Your task to perform on an android device: Clear all items from cart on costco. Add "bose quietcomfort 35" to the cart on costco, then select checkout. Image 0: 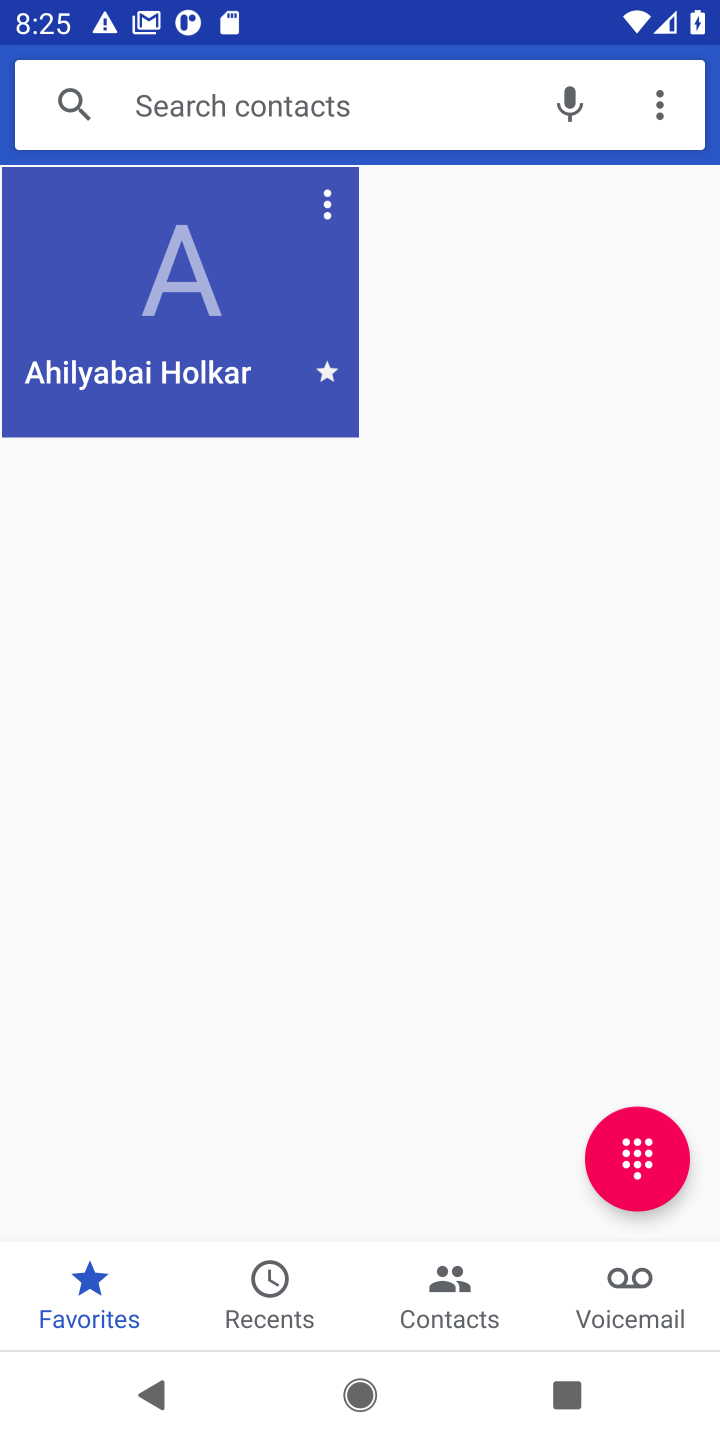
Step 0: press home button
Your task to perform on an android device: Clear all items from cart on costco. Add "bose quietcomfort 35" to the cart on costco, then select checkout. Image 1: 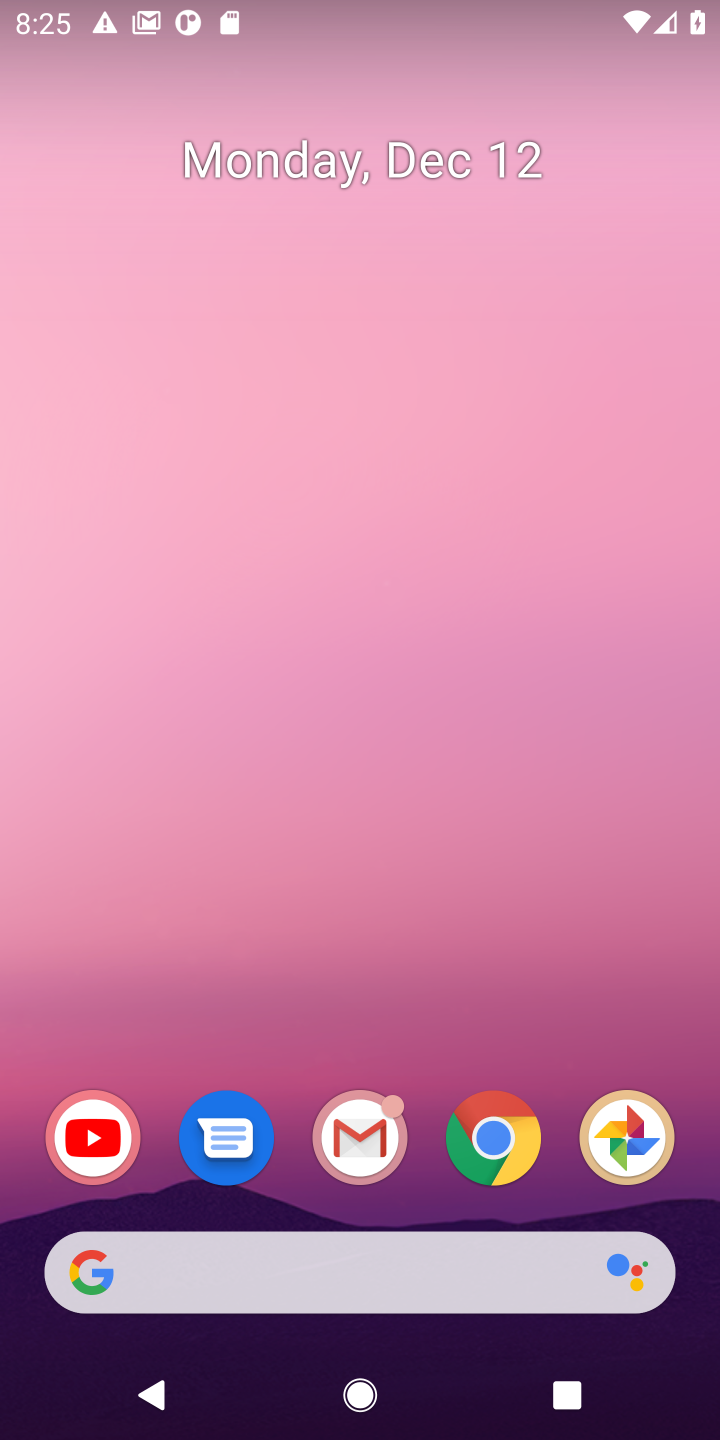
Step 1: drag from (288, 1036) to (285, 313)
Your task to perform on an android device: Clear all items from cart on costco. Add "bose quietcomfort 35" to the cart on costco, then select checkout. Image 2: 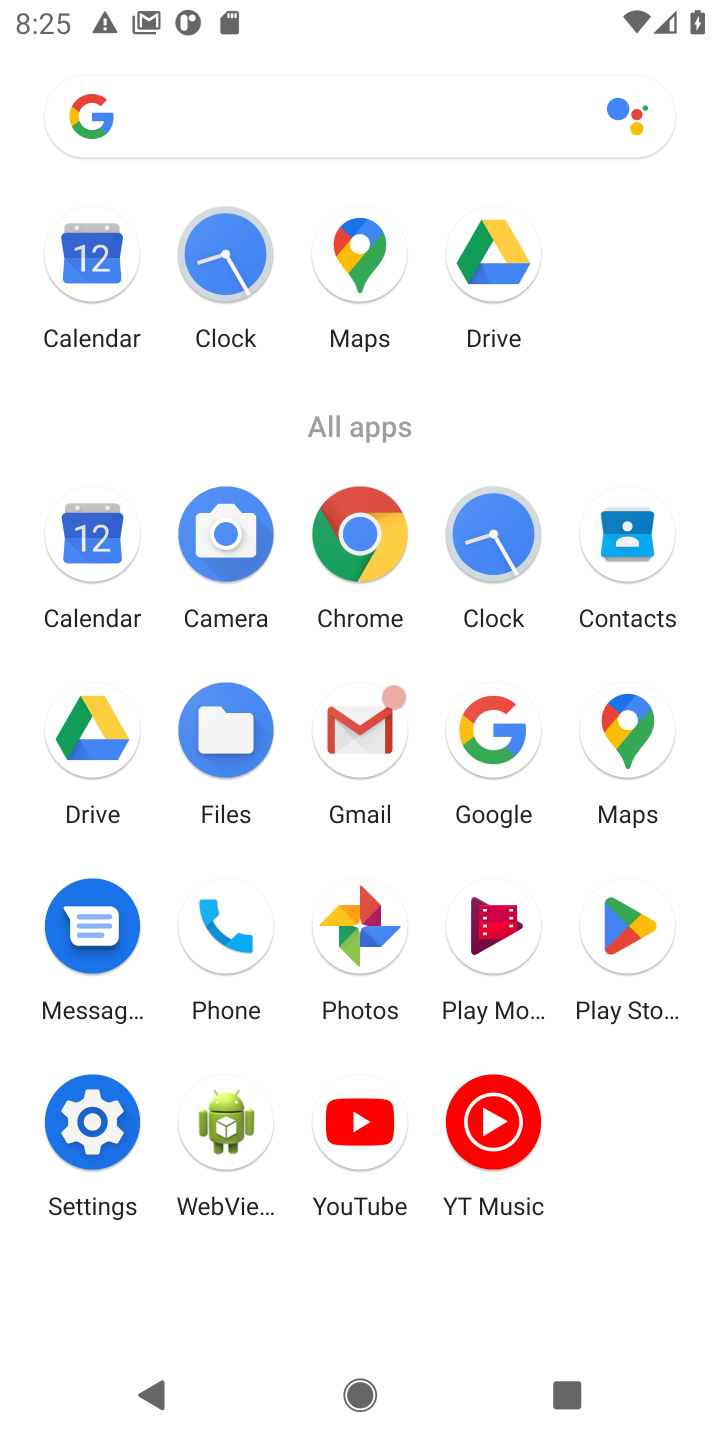
Step 2: click (507, 747)
Your task to perform on an android device: Clear all items from cart on costco. Add "bose quietcomfort 35" to the cart on costco, then select checkout. Image 3: 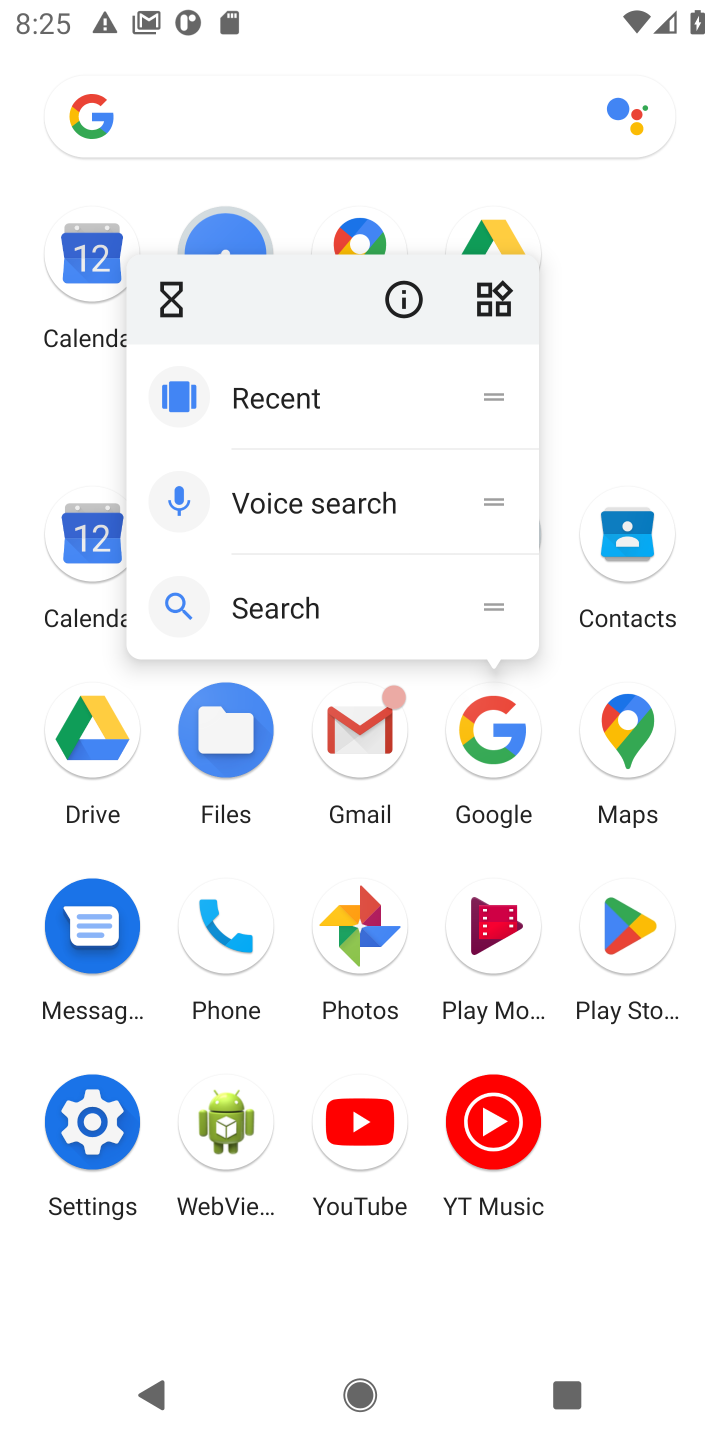
Step 3: click (507, 742)
Your task to perform on an android device: Clear all items from cart on costco. Add "bose quietcomfort 35" to the cart on costco, then select checkout. Image 4: 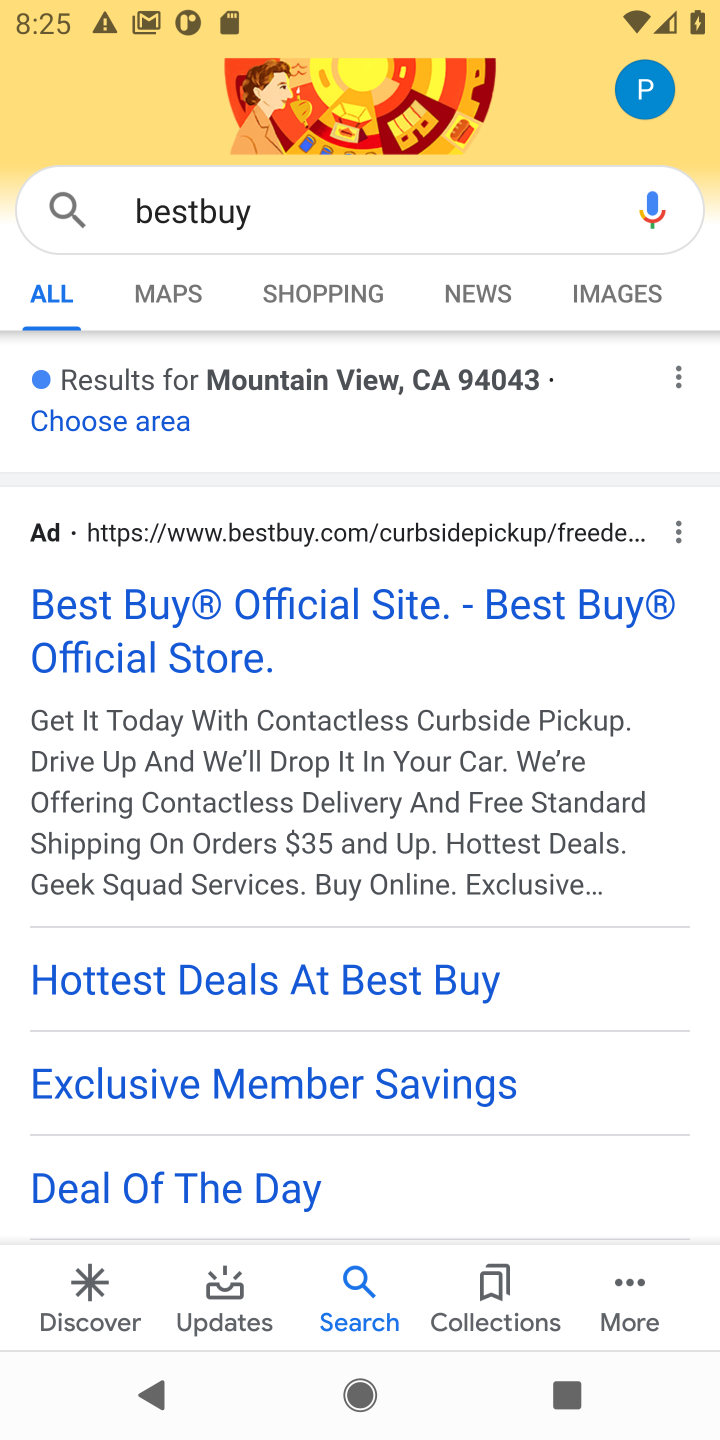
Step 4: click (177, 219)
Your task to perform on an android device: Clear all items from cart on costco. Add "bose quietcomfort 35" to the cart on costco, then select checkout. Image 5: 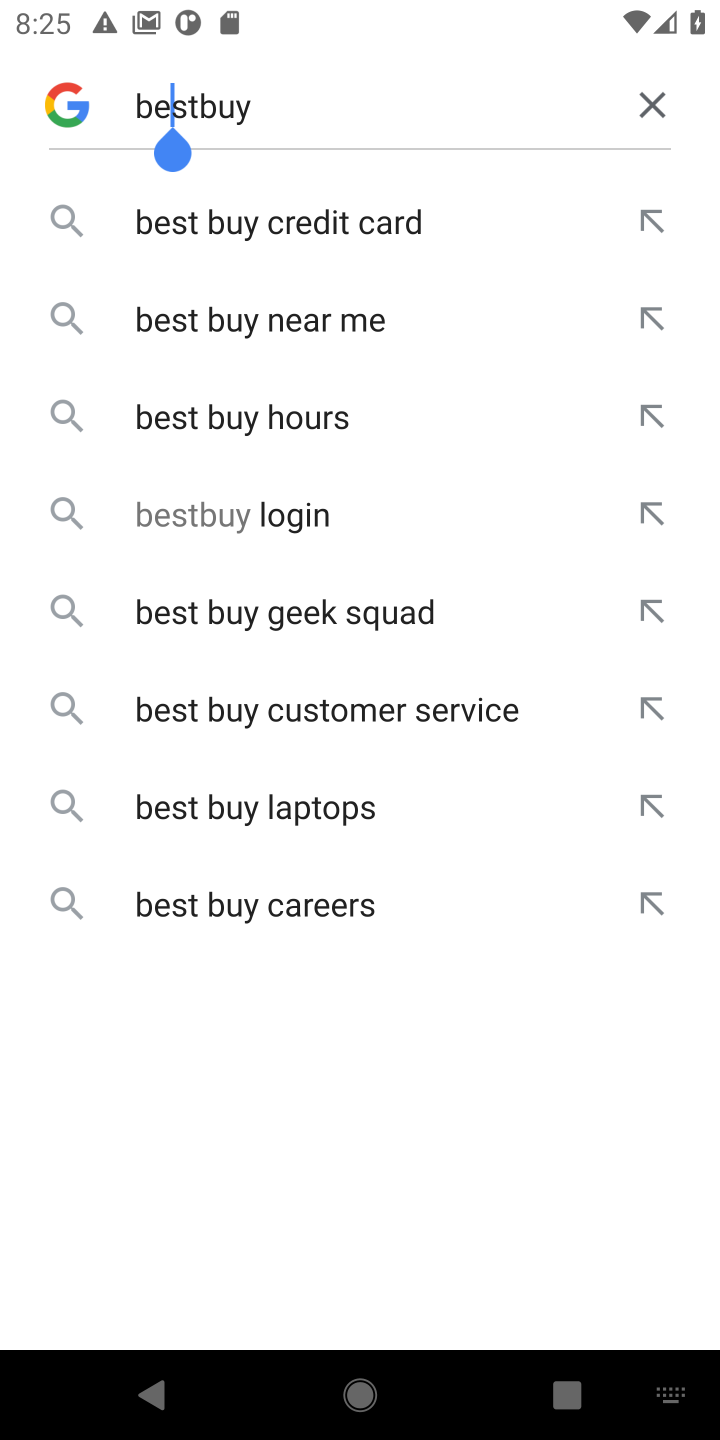
Step 5: click (652, 103)
Your task to perform on an android device: Clear all items from cart on costco. Add "bose quietcomfort 35" to the cart on costco, then select checkout. Image 6: 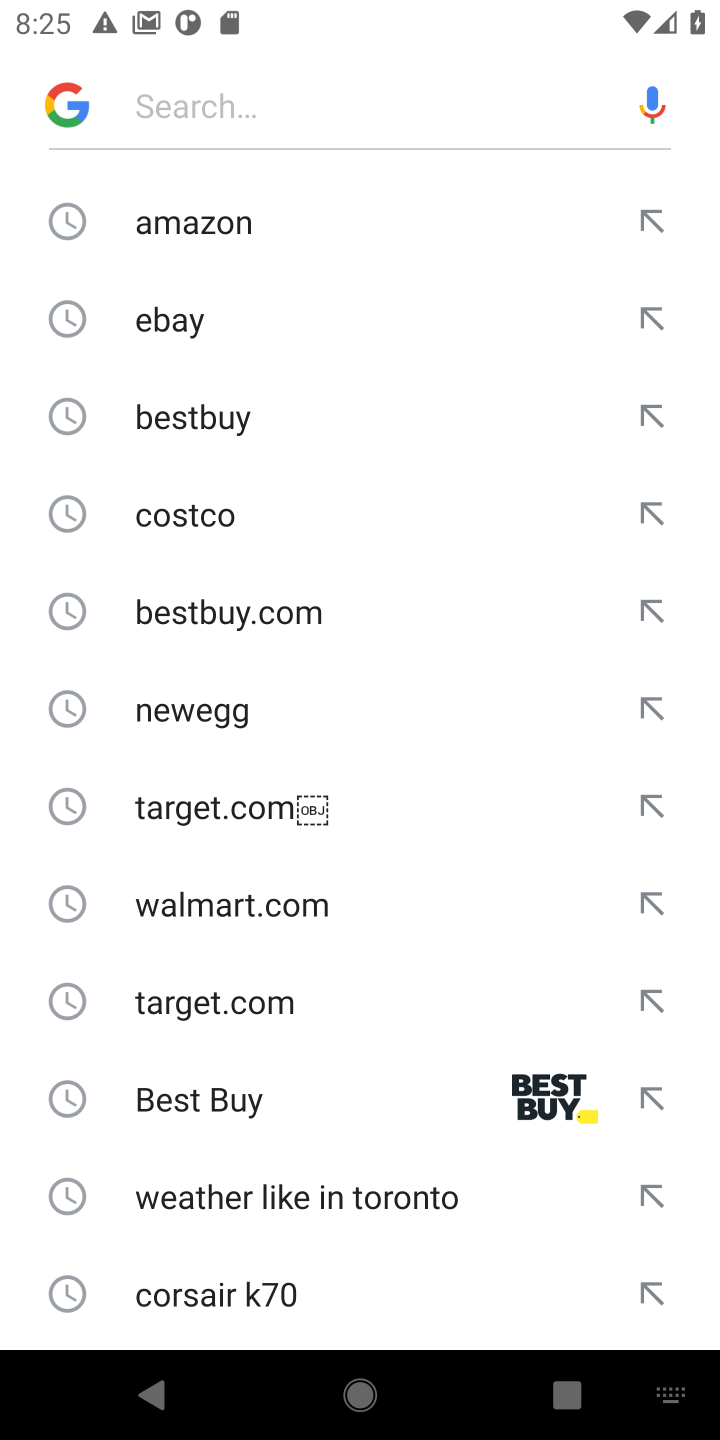
Step 6: click (189, 529)
Your task to perform on an android device: Clear all items from cart on costco. Add "bose quietcomfort 35" to the cart on costco, then select checkout. Image 7: 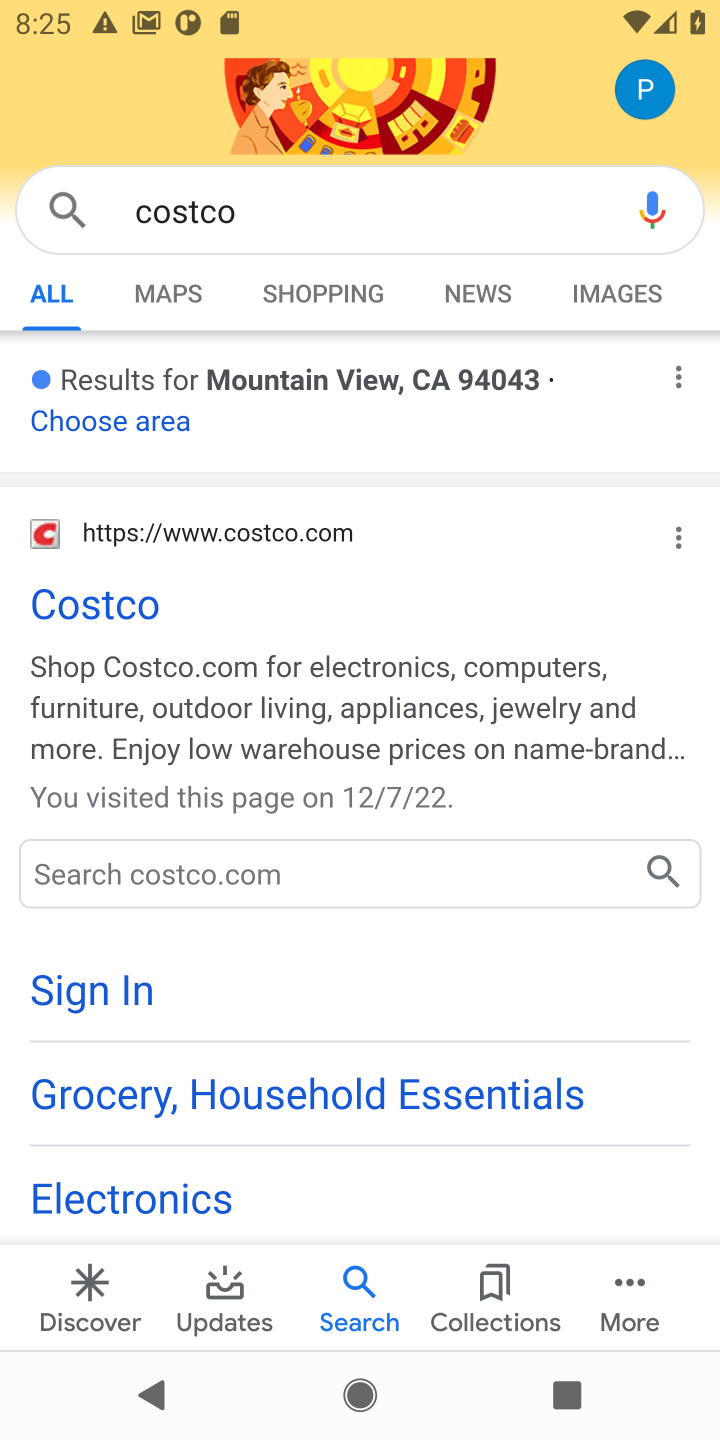
Step 7: click (142, 607)
Your task to perform on an android device: Clear all items from cart on costco. Add "bose quietcomfort 35" to the cart on costco, then select checkout. Image 8: 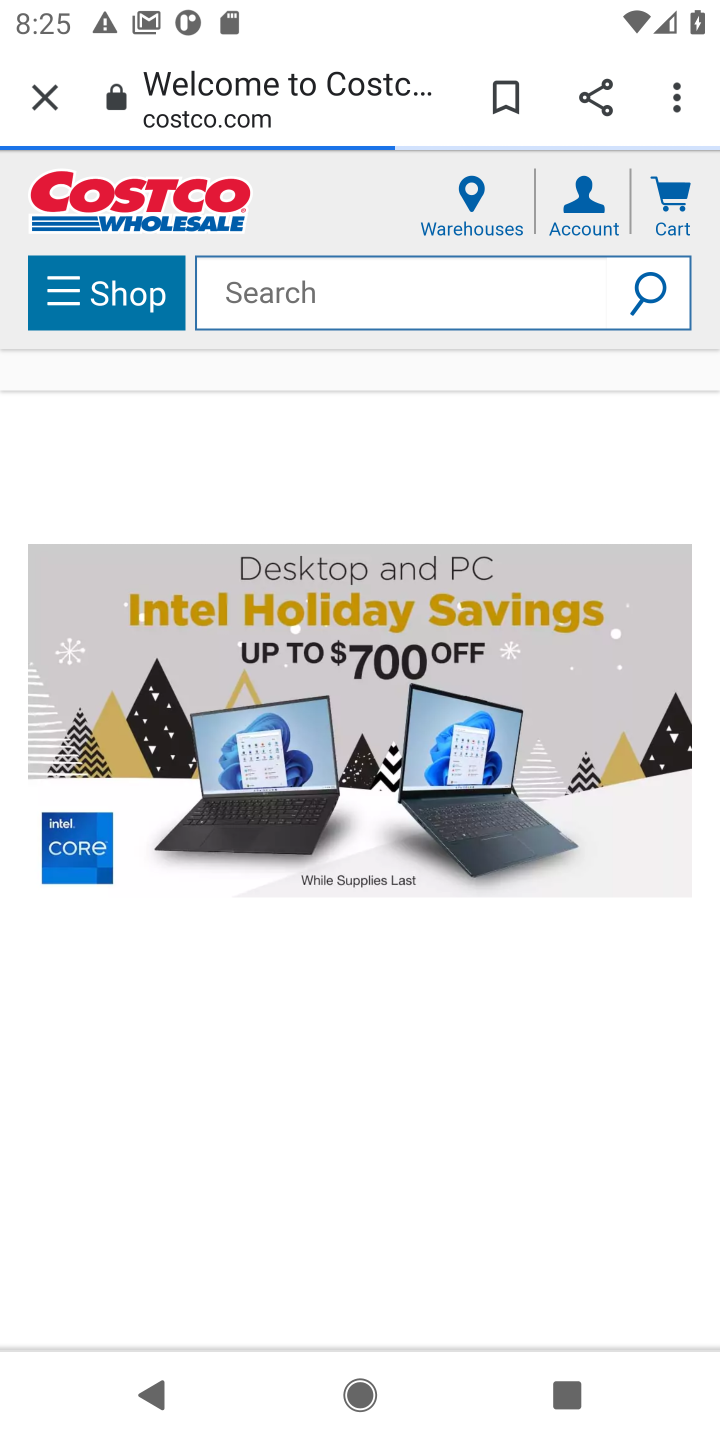
Step 8: click (381, 295)
Your task to perform on an android device: Clear all items from cart on costco. Add "bose quietcomfort 35" to the cart on costco, then select checkout. Image 9: 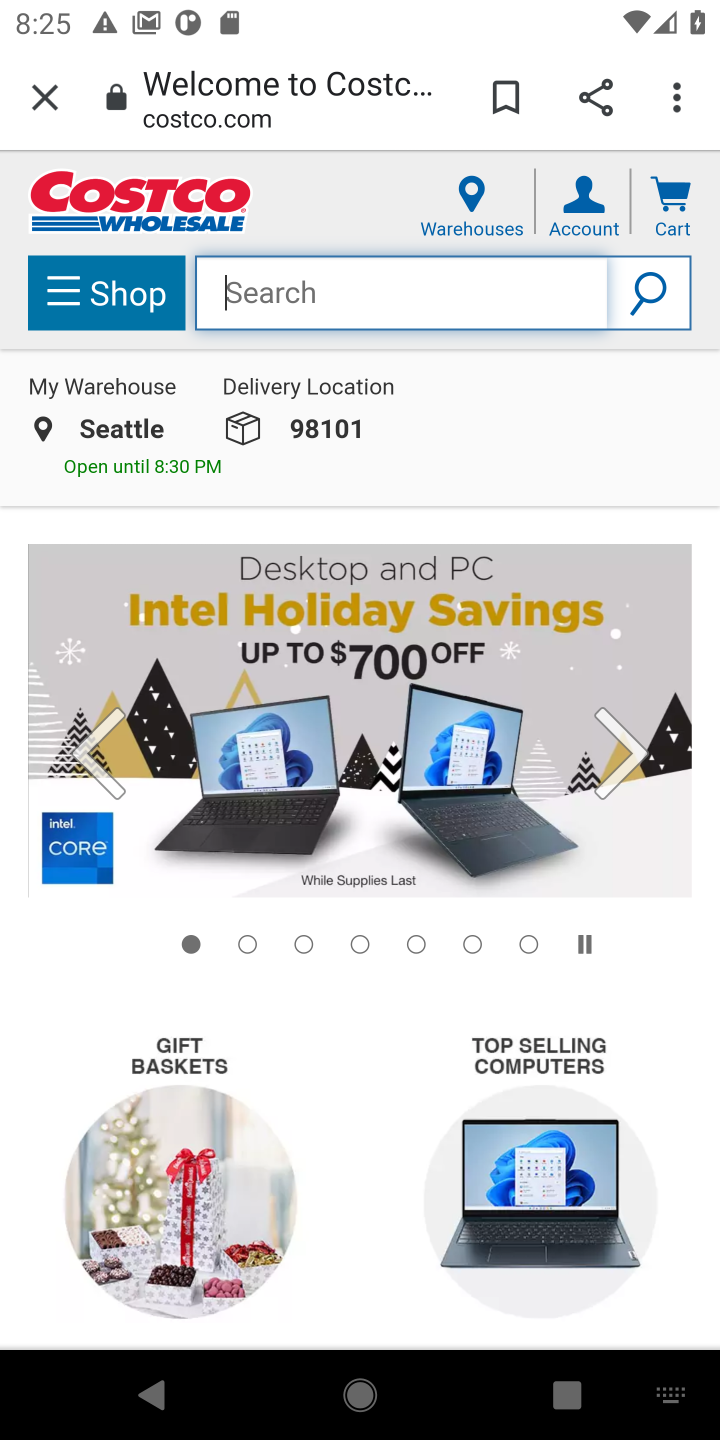
Step 9: click (669, 206)
Your task to perform on an android device: Clear all items from cart on costco. Add "bose quietcomfort 35" to the cart on costco, then select checkout. Image 10: 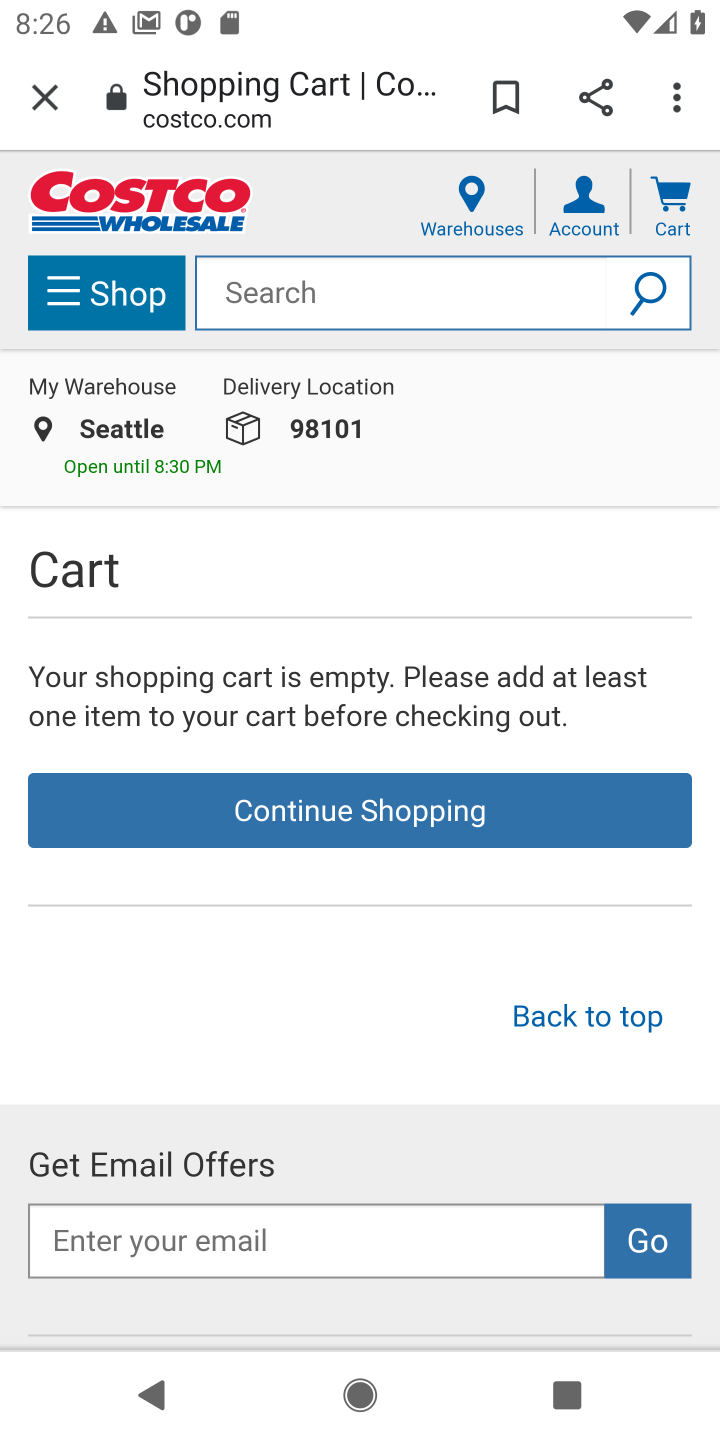
Step 10: drag from (320, 1128) to (379, 256)
Your task to perform on an android device: Clear all items from cart on costco. Add "bose quietcomfort 35" to the cart on costco, then select checkout. Image 11: 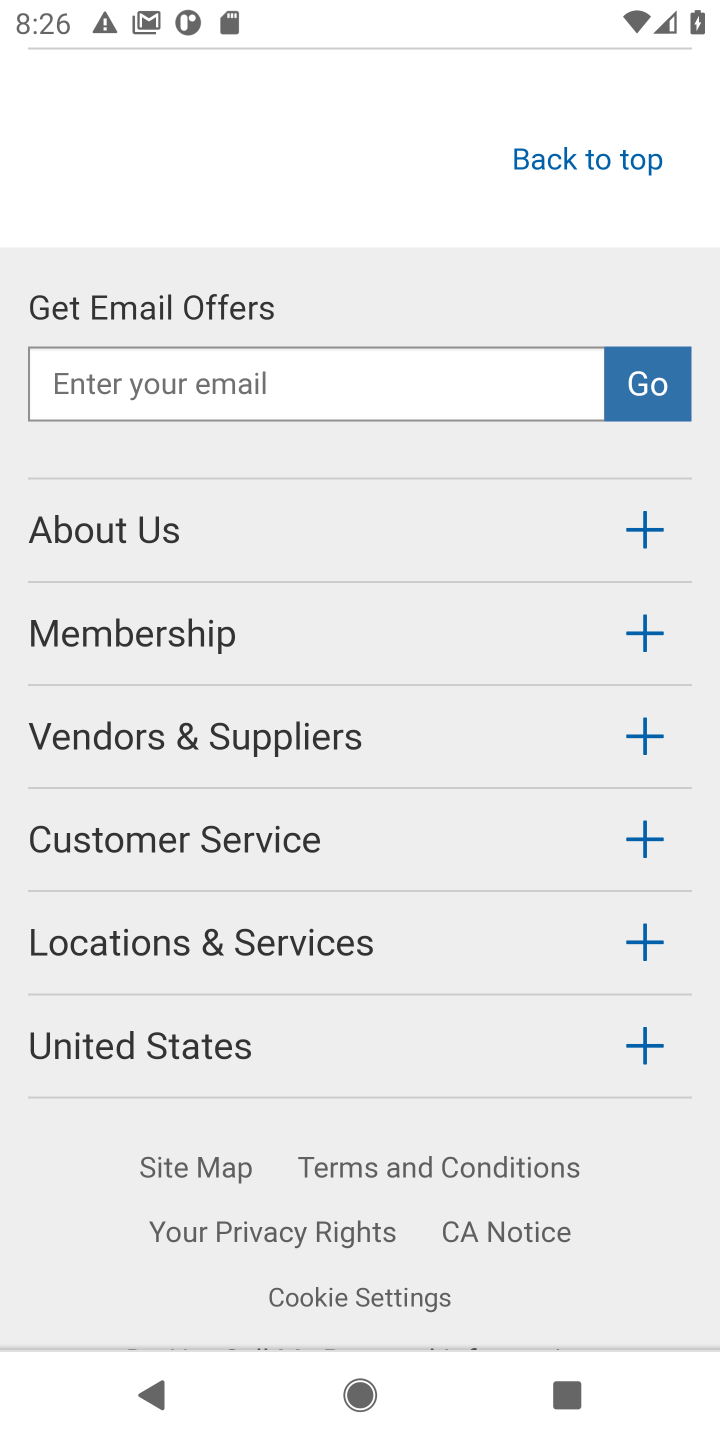
Step 11: drag from (402, 121) to (275, 932)
Your task to perform on an android device: Clear all items from cart on costco. Add "bose quietcomfort 35" to the cart on costco, then select checkout. Image 12: 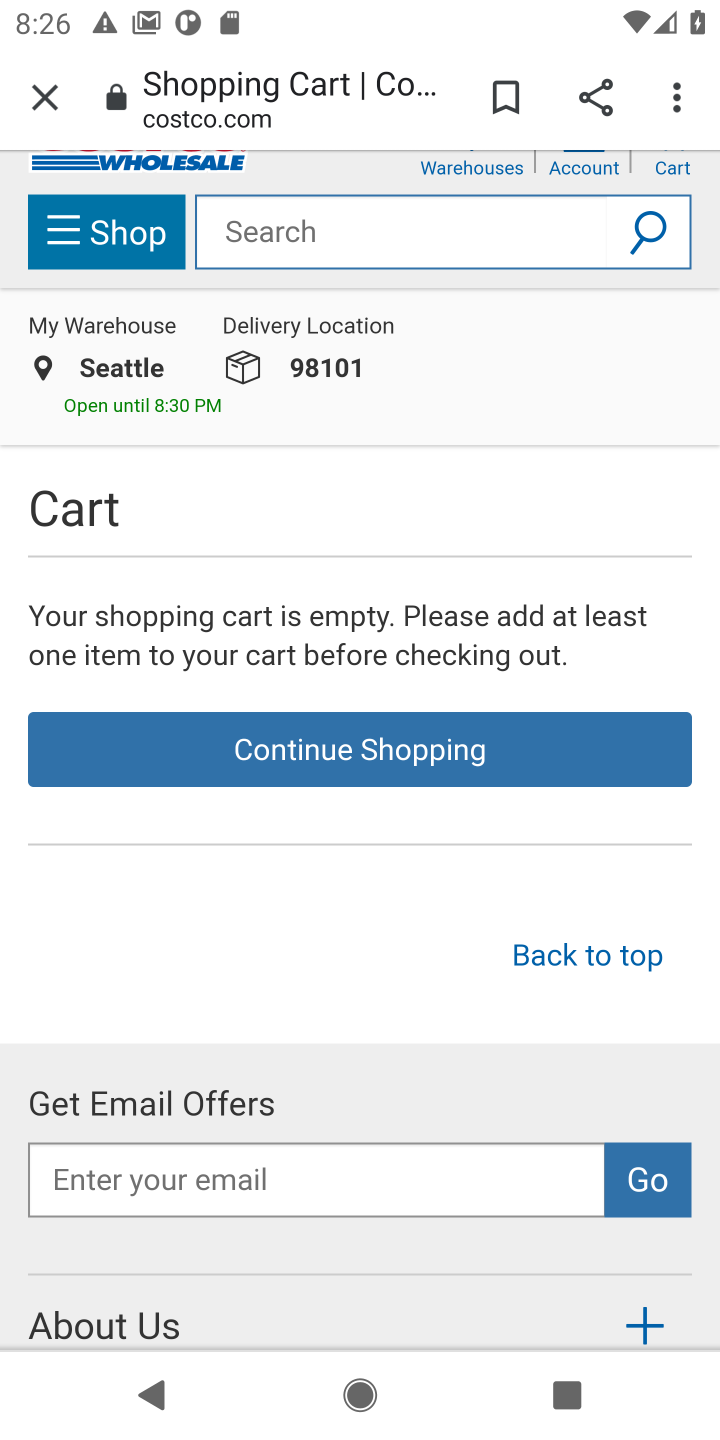
Step 12: drag from (351, 328) to (336, 935)
Your task to perform on an android device: Clear all items from cart on costco. Add "bose quietcomfort 35" to the cart on costco, then select checkout. Image 13: 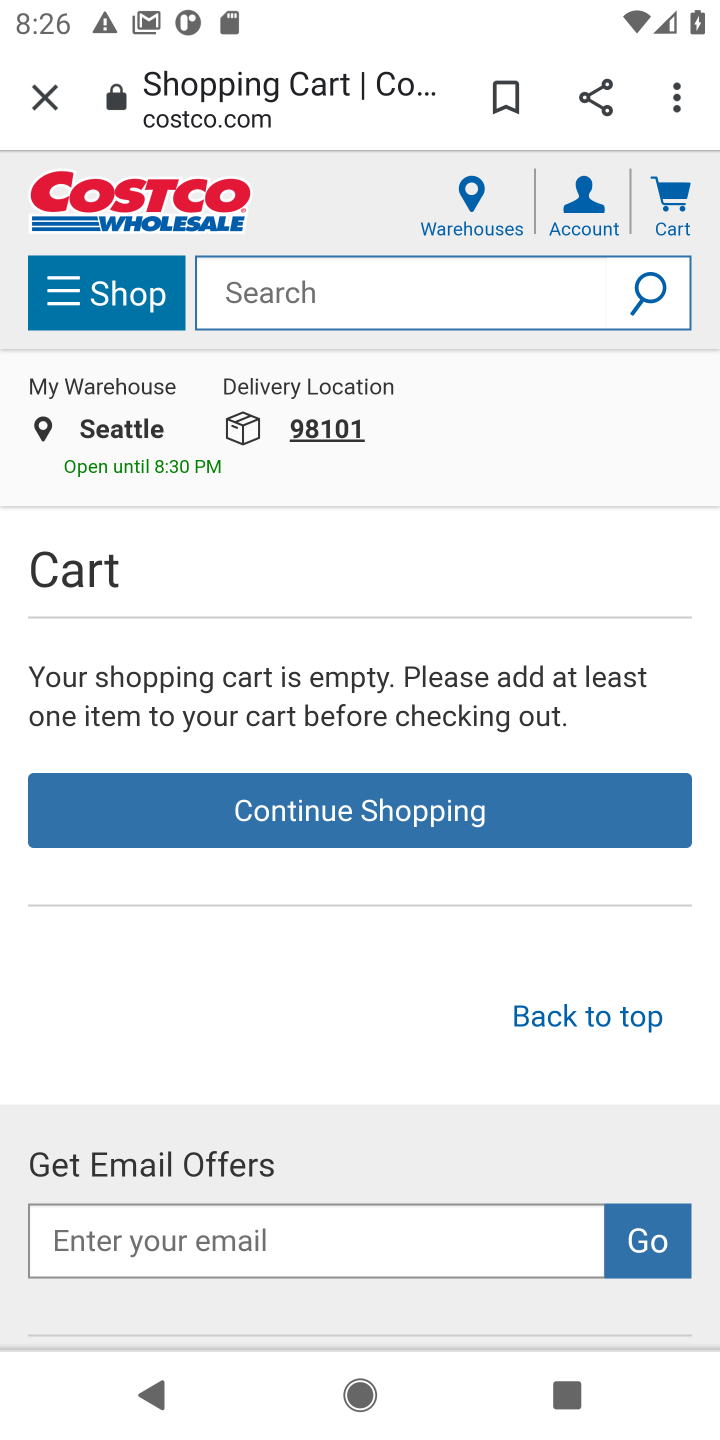
Step 13: click (255, 293)
Your task to perform on an android device: Clear all items from cart on costco. Add "bose quietcomfort 35" to the cart on costco, then select checkout. Image 14: 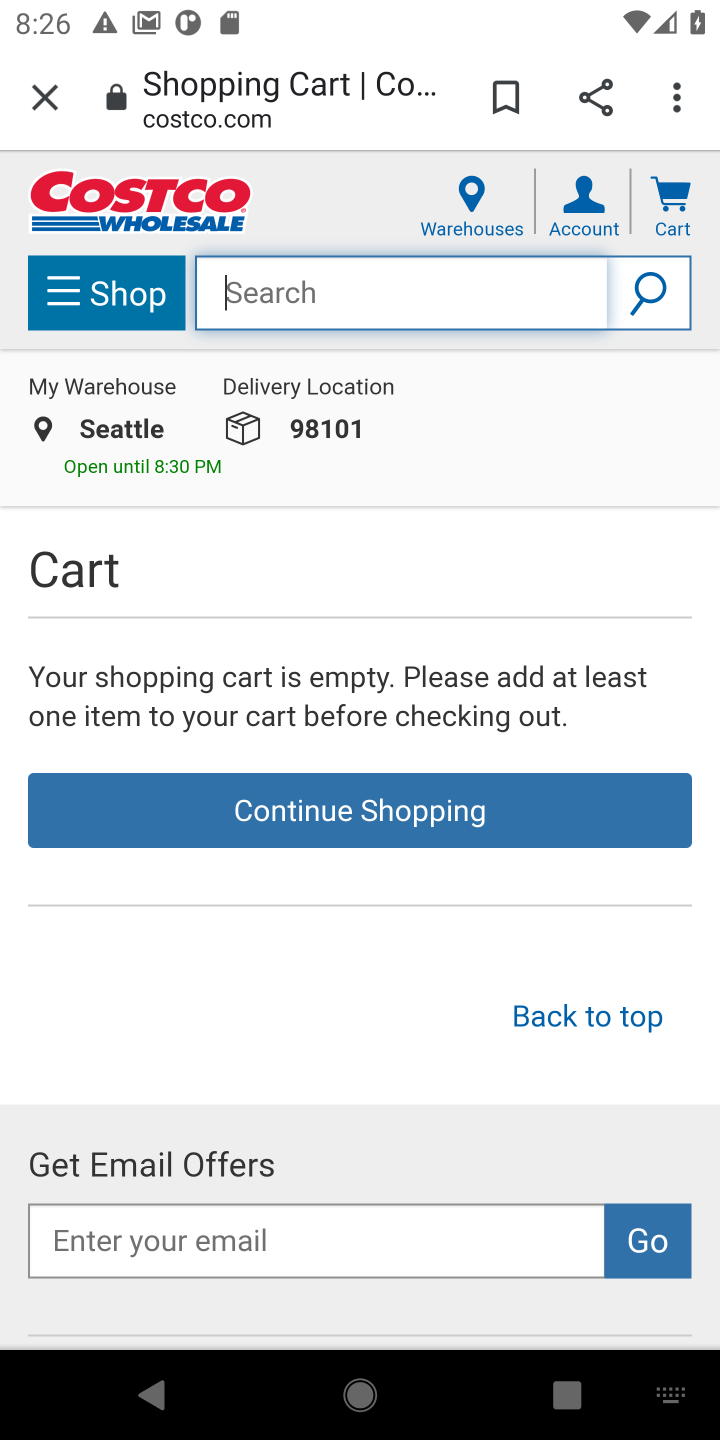
Step 14: type "bose quietcomfort 35"
Your task to perform on an android device: Clear all items from cart on costco. Add "bose quietcomfort 35" to the cart on costco, then select checkout. Image 15: 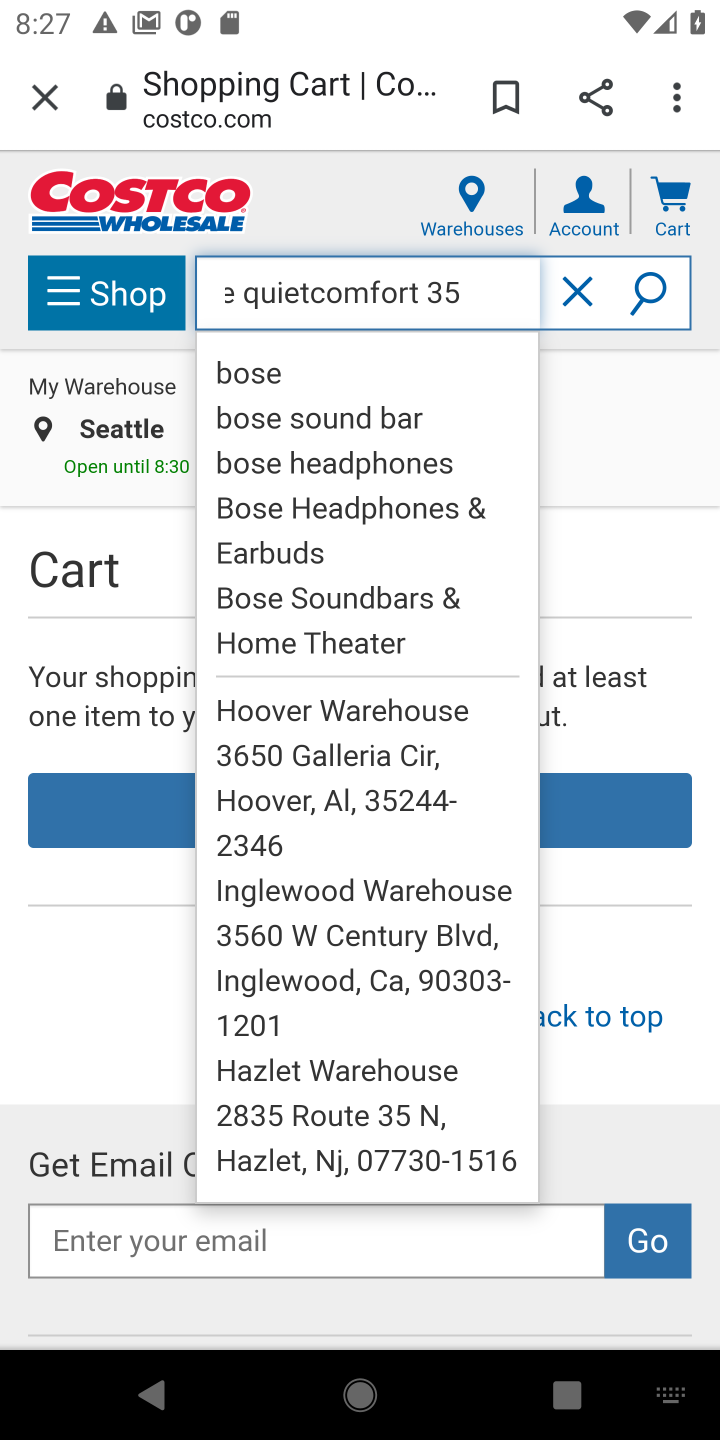
Step 15: click (650, 275)
Your task to perform on an android device: Clear all items from cart on costco. Add "bose quietcomfort 35" to the cart on costco, then select checkout. Image 16: 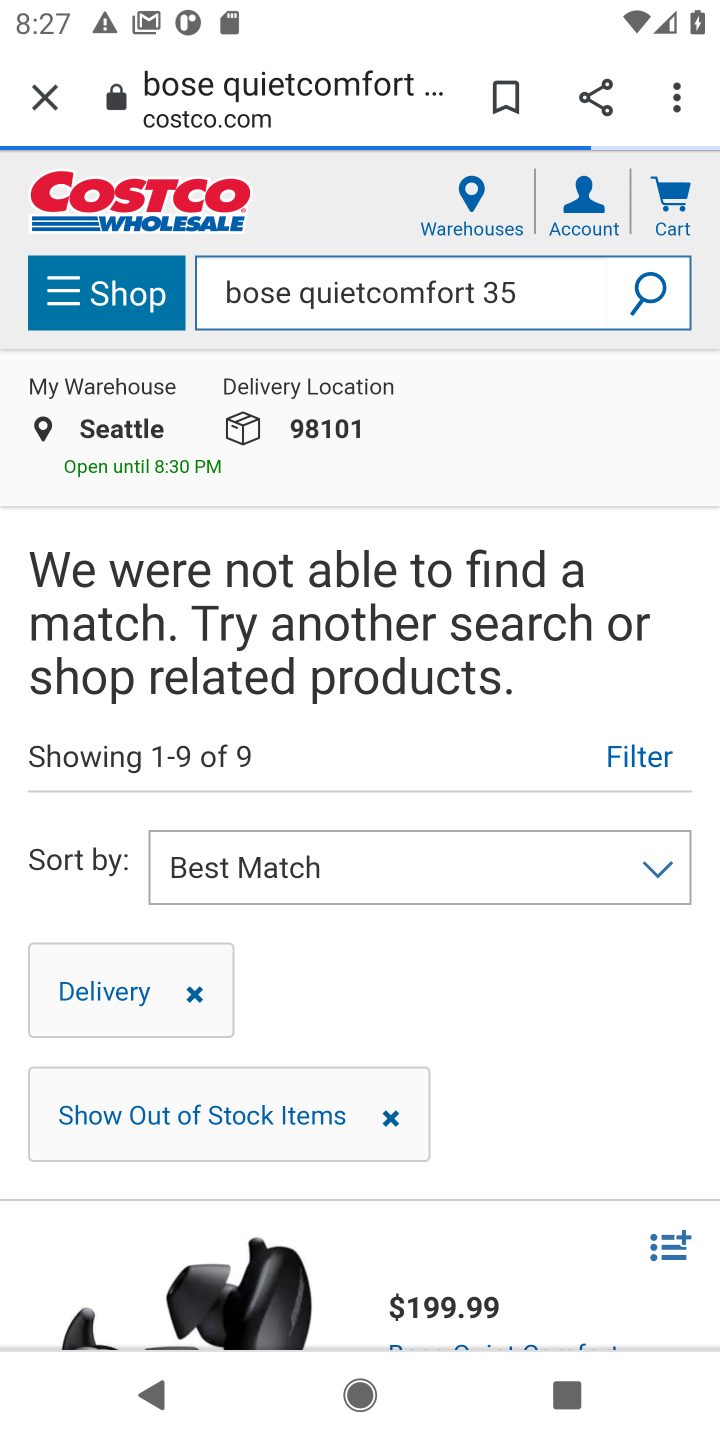
Step 16: drag from (470, 1130) to (468, 536)
Your task to perform on an android device: Clear all items from cart on costco. Add "bose quietcomfort 35" to the cart on costco, then select checkout. Image 17: 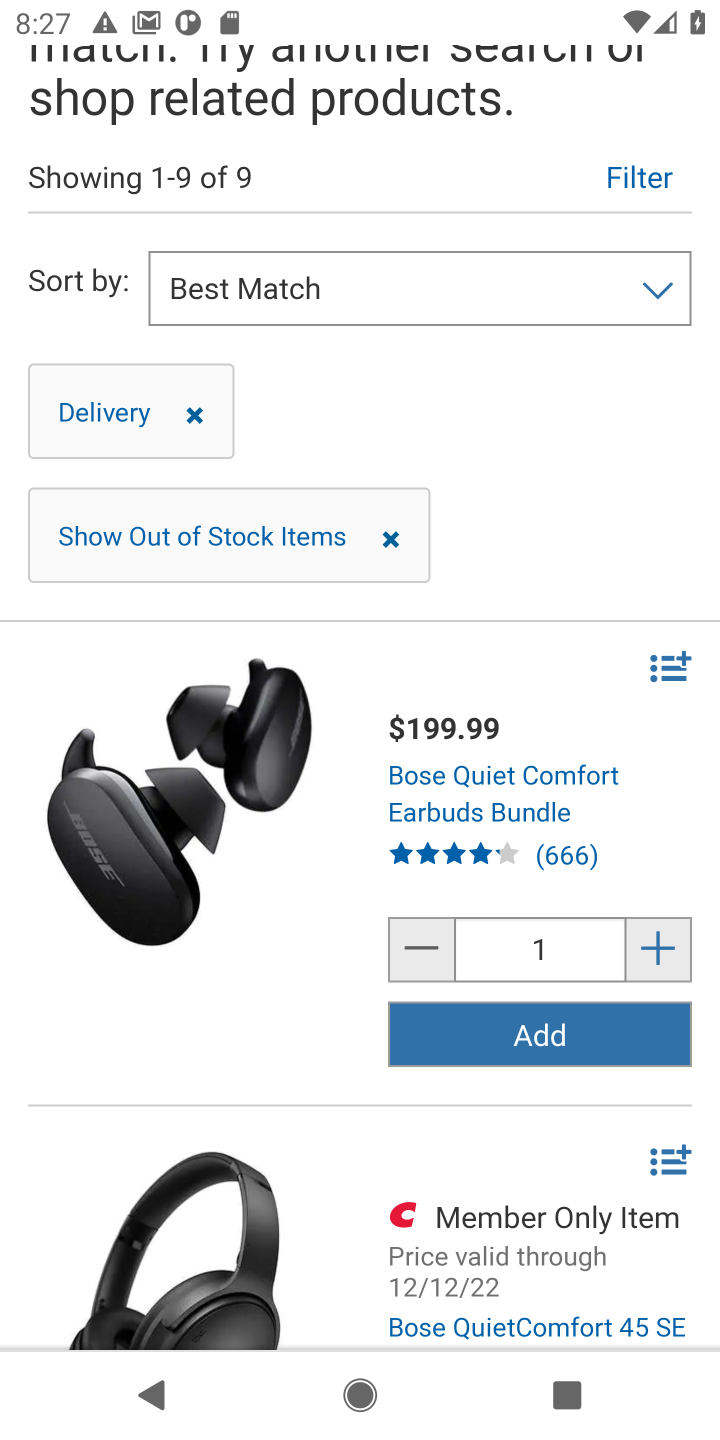
Step 17: click (555, 1039)
Your task to perform on an android device: Clear all items from cart on costco. Add "bose quietcomfort 35" to the cart on costco, then select checkout. Image 18: 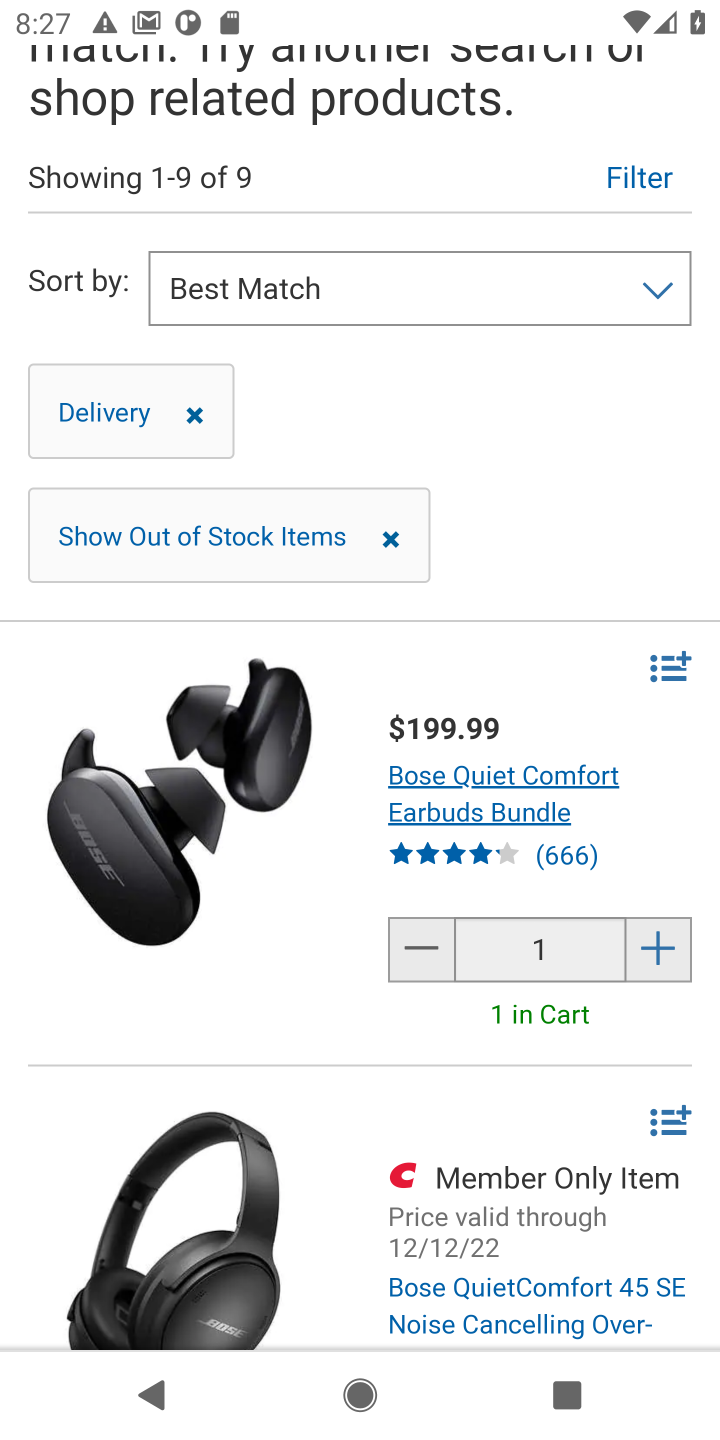
Step 18: drag from (266, 1000) to (293, 450)
Your task to perform on an android device: Clear all items from cart on costco. Add "bose quietcomfort 35" to the cart on costco, then select checkout. Image 19: 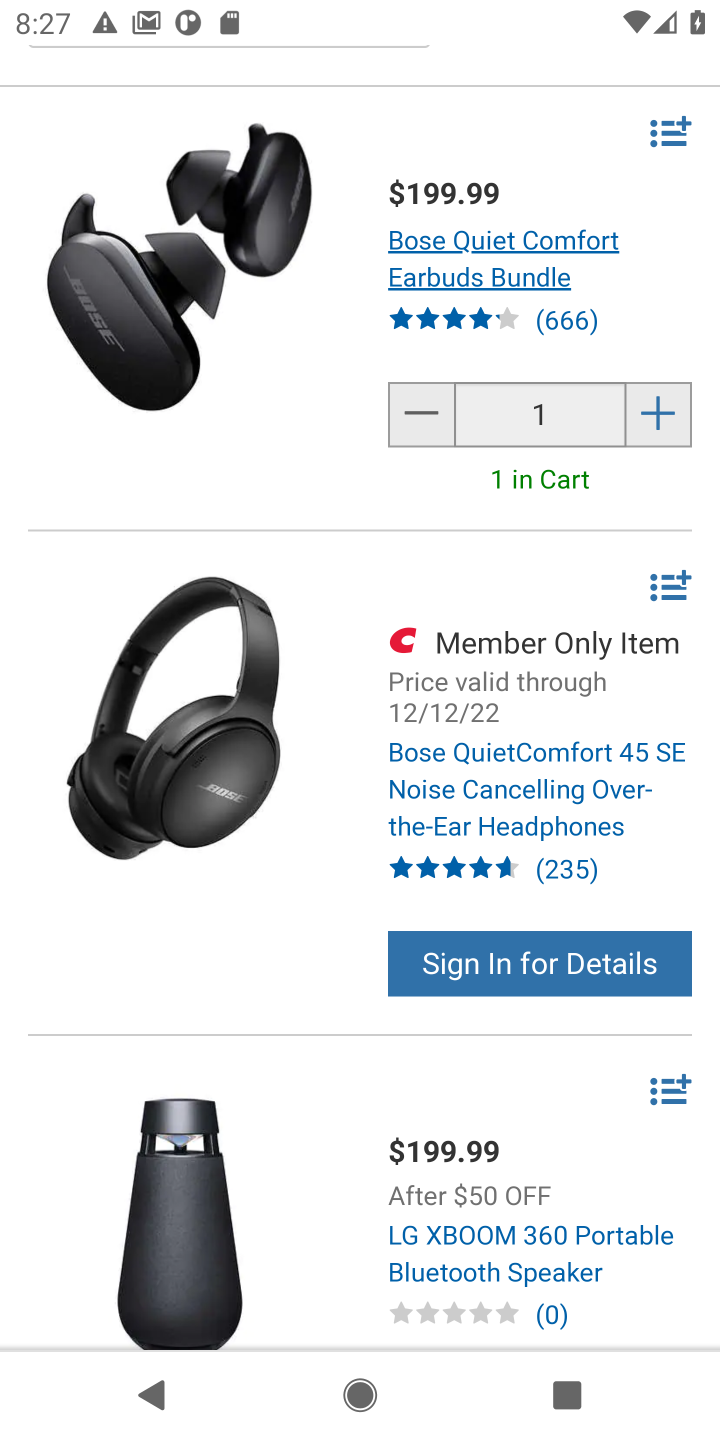
Step 19: drag from (416, 134) to (402, 950)
Your task to perform on an android device: Clear all items from cart on costco. Add "bose quietcomfort 35" to the cart on costco, then select checkout. Image 20: 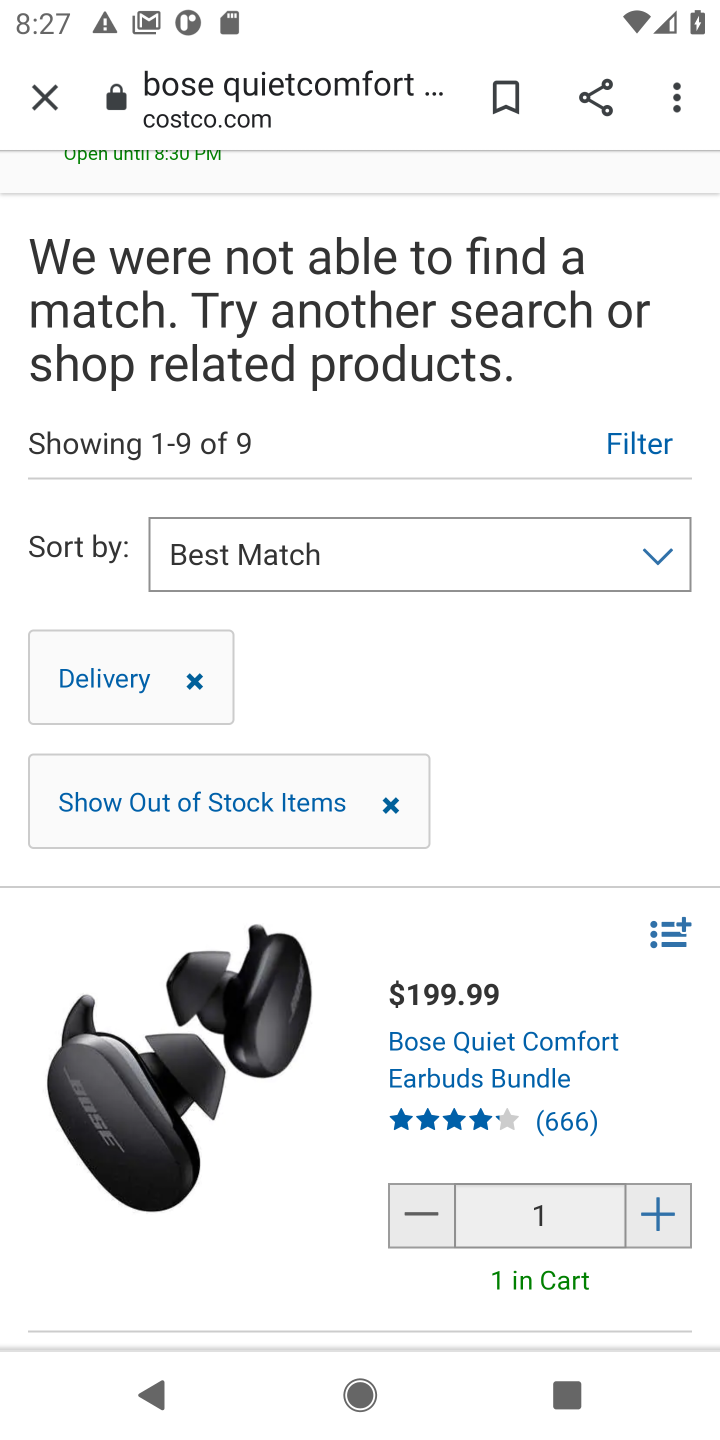
Step 20: drag from (412, 166) to (475, 918)
Your task to perform on an android device: Clear all items from cart on costco. Add "bose quietcomfort 35" to the cart on costco, then select checkout. Image 21: 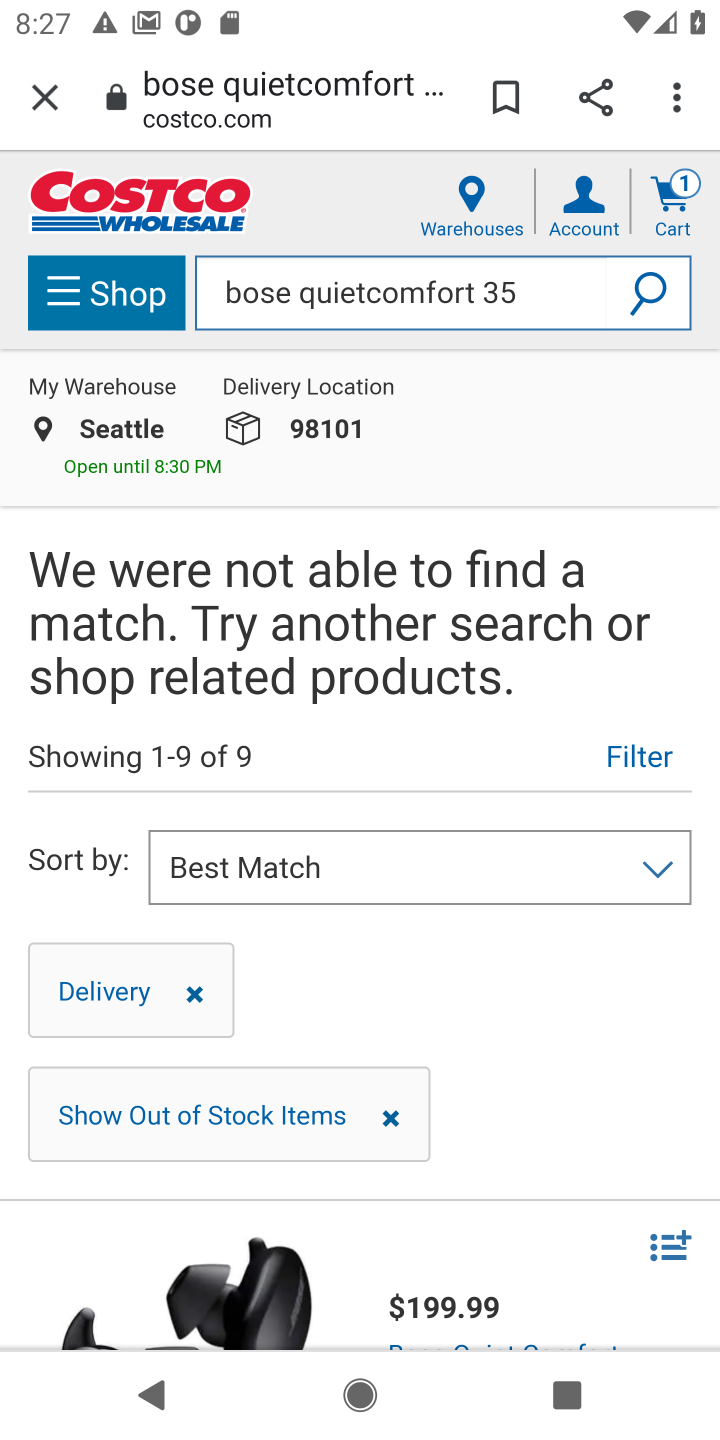
Step 21: click (661, 198)
Your task to perform on an android device: Clear all items from cart on costco. Add "bose quietcomfort 35" to the cart on costco, then select checkout. Image 22: 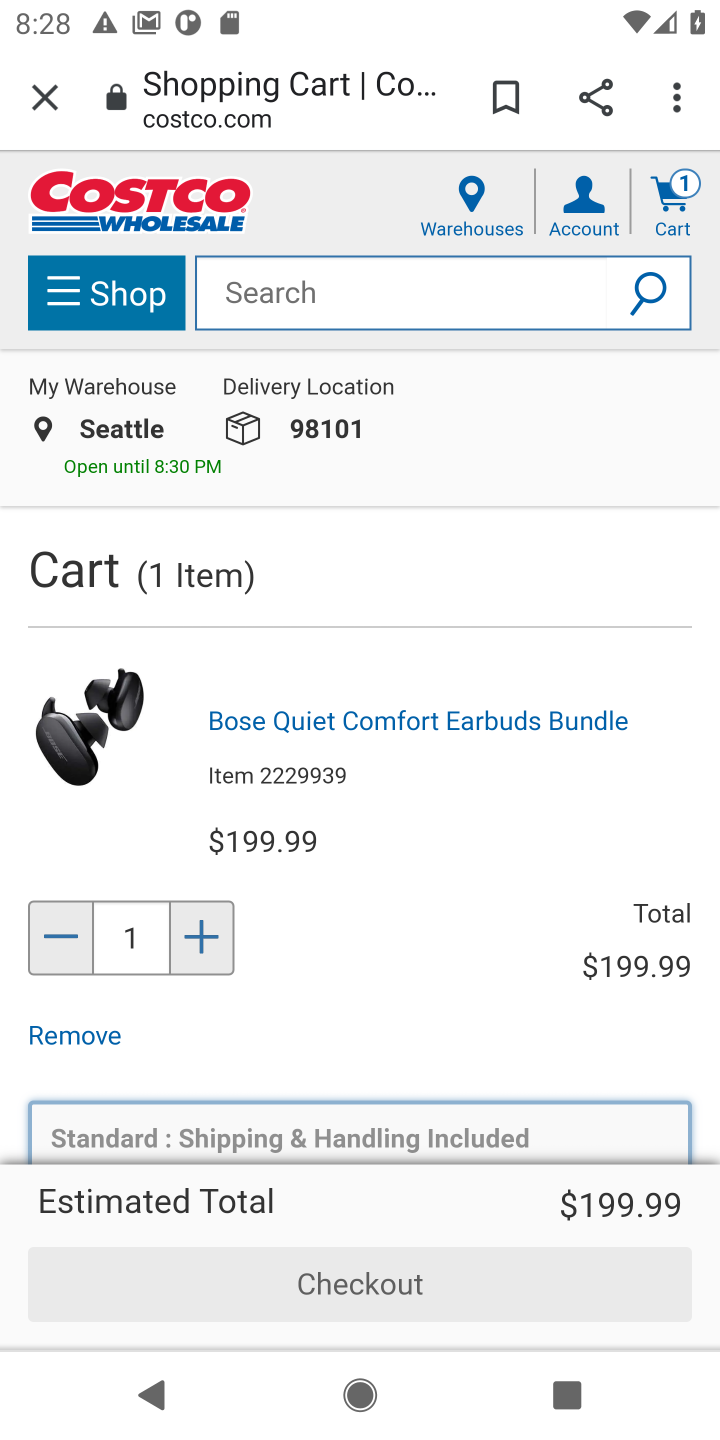
Step 22: drag from (414, 1080) to (410, 375)
Your task to perform on an android device: Clear all items from cart on costco. Add "bose quietcomfort 35" to the cart on costco, then select checkout. Image 23: 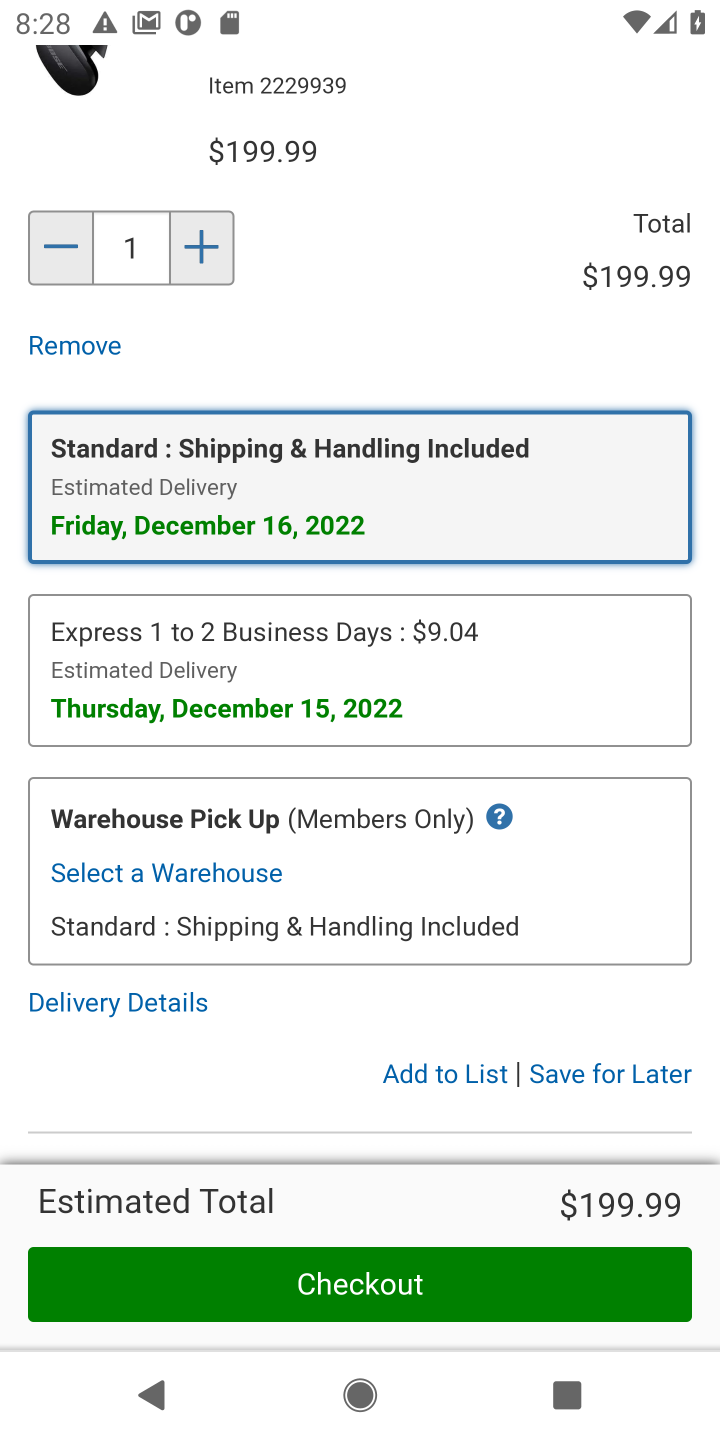
Step 23: click (399, 1298)
Your task to perform on an android device: Clear all items from cart on costco. Add "bose quietcomfort 35" to the cart on costco, then select checkout. Image 24: 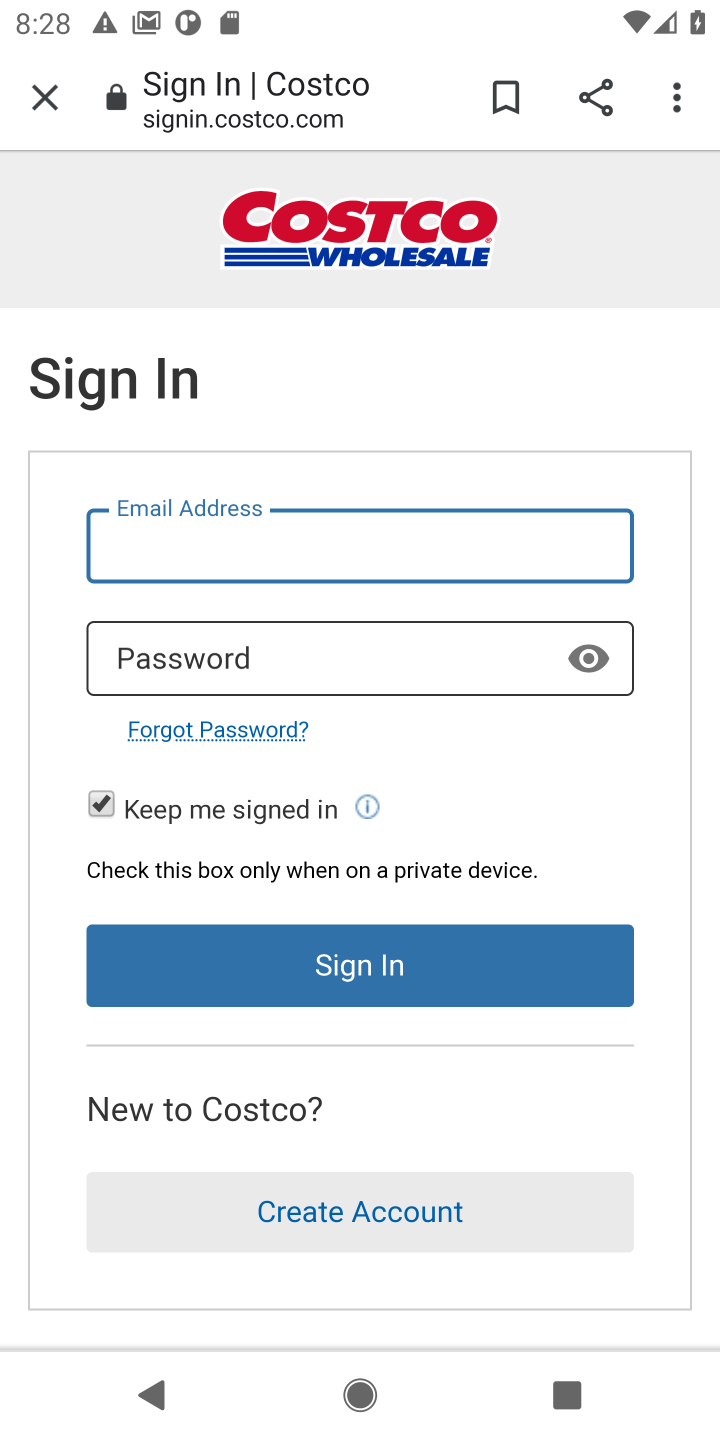
Step 24: task complete